Your task to perform on an android device: change notifications settings Image 0: 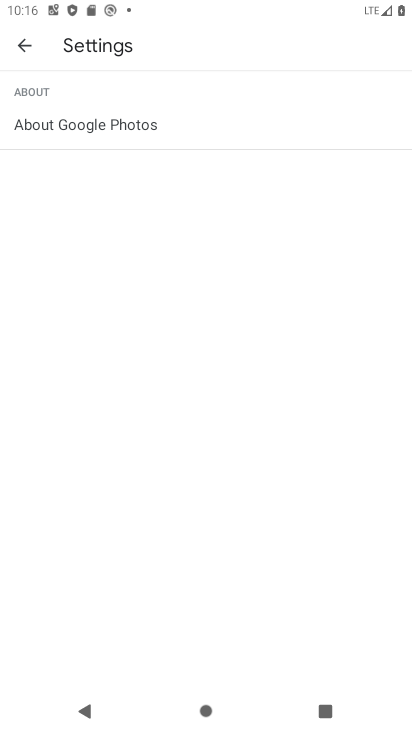
Step 0: press home button
Your task to perform on an android device: change notifications settings Image 1: 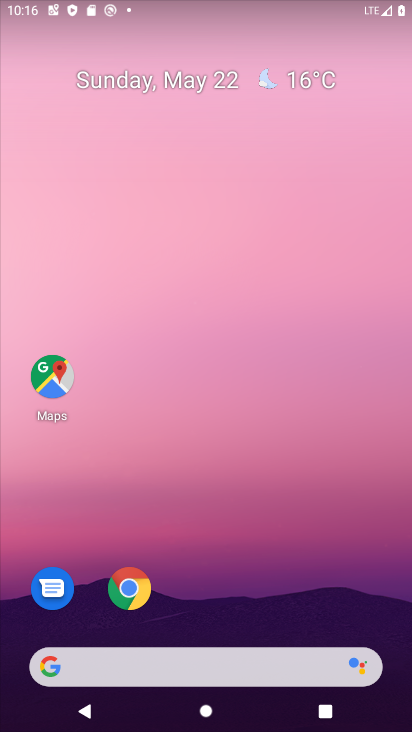
Step 1: drag from (242, 617) to (243, 235)
Your task to perform on an android device: change notifications settings Image 2: 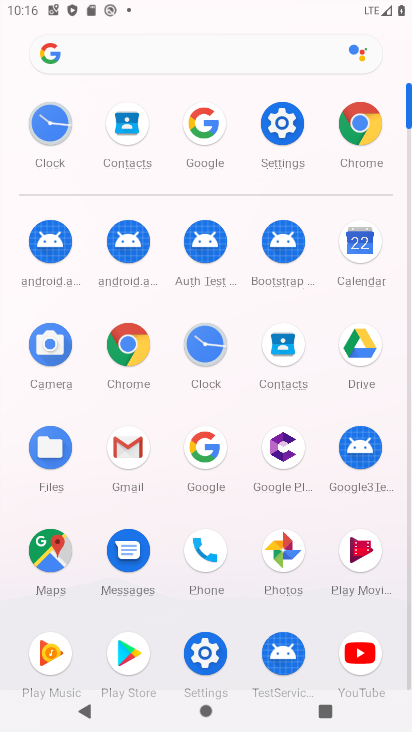
Step 2: click (277, 137)
Your task to perform on an android device: change notifications settings Image 3: 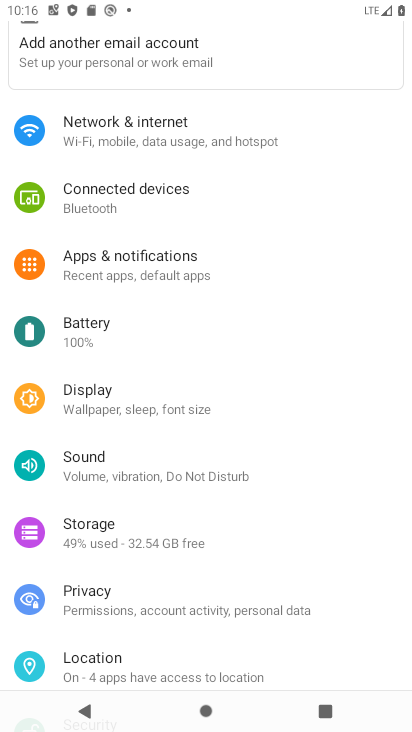
Step 3: click (207, 260)
Your task to perform on an android device: change notifications settings Image 4: 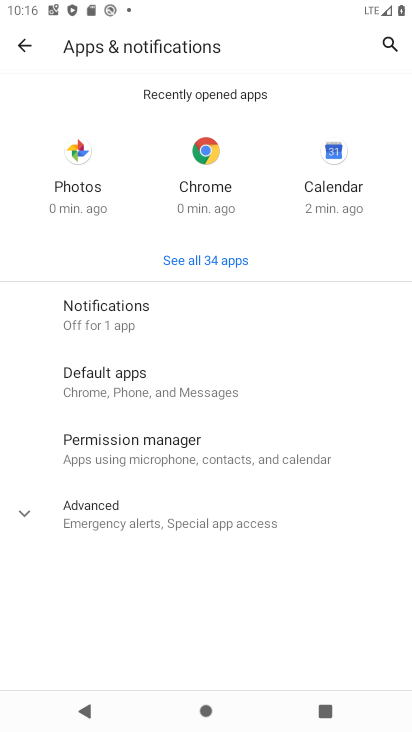
Step 4: click (180, 310)
Your task to perform on an android device: change notifications settings Image 5: 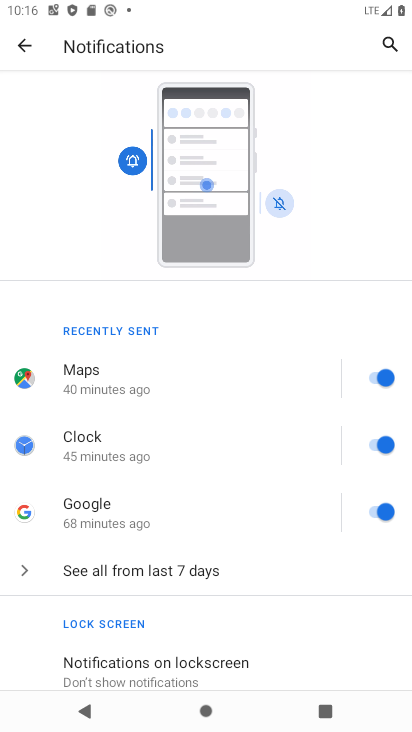
Step 5: drag from (240, 545) to (253, 304)
Your task to perform on an android device: change notifications settings Image 6: 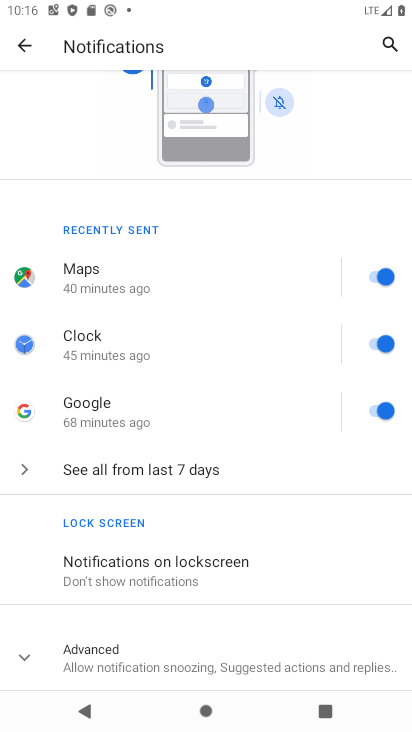
Step 6: click (220, 545)
Your task to perform on an android device: change notifications settings Image 7: 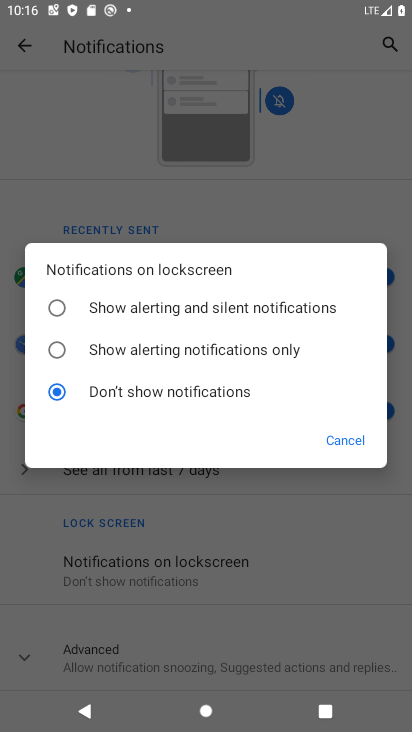
Step 7: click (266, 312)
Your task to perform on an android device: change notifications settings Image 8: 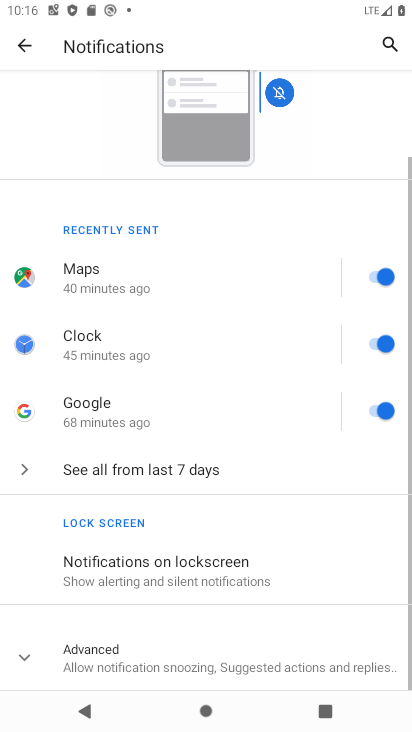
Step 8: task complete